Your task to perform on an android device: Go to Google maps Image 0: 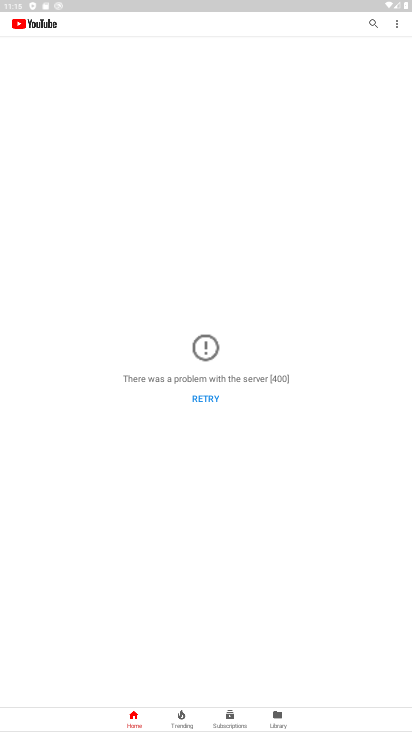
Step 0: press home button
Your task to perform on an android device: Go to Google maps Image 1: 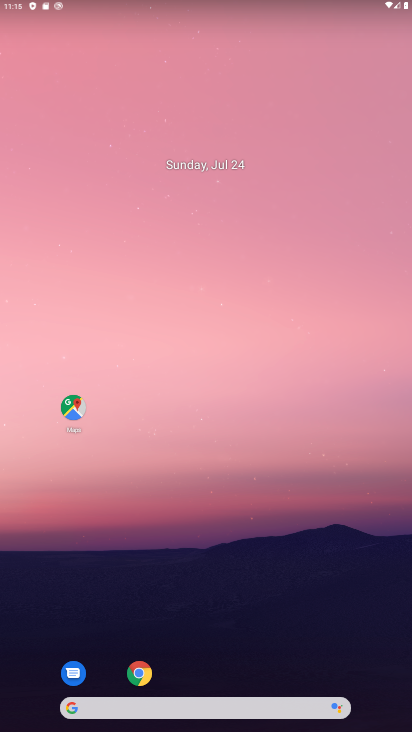
Step 1: drag from (173, 703) to (386, 576)
Your task to perform on an android device: Go to Google maps Image 2: 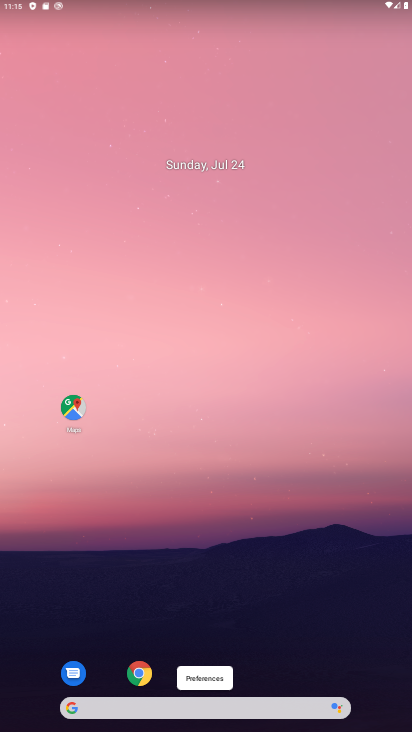
Step 2: drag from (308, 559) to (182, 7)
Your task to perform on an android device: Go to Google maps Image 3: 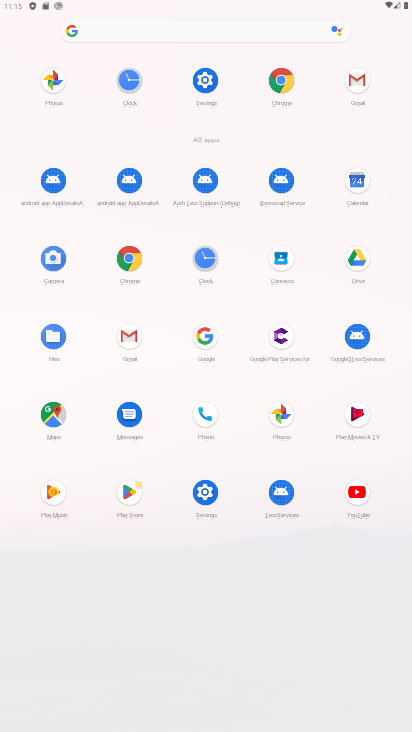
Step 3: click (55, 411)
Your task to perform on an android device: Go to Google maps Image 4: 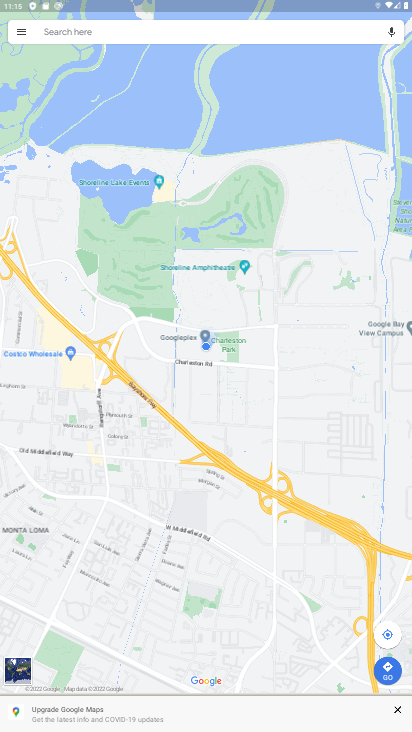
Step 4: task complete